Your task to perform on an android device: Go to location settings Image 0: 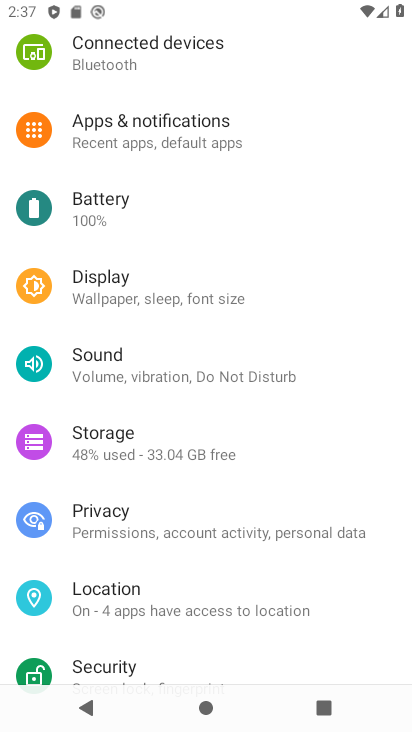
Step 0: press back button
Your task to perform on an android device: Go to location settings Image 1: 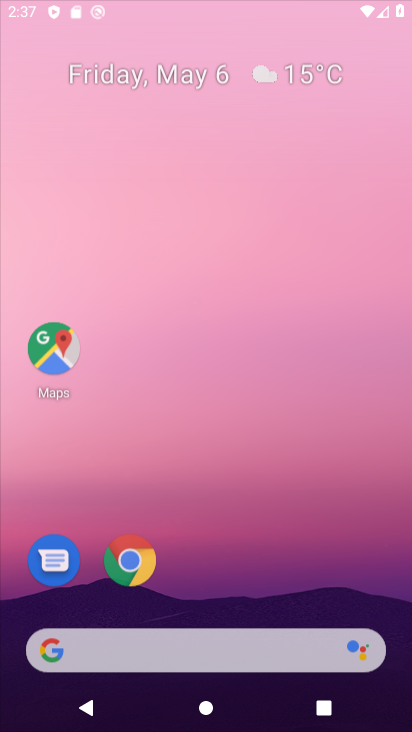
Step 1: press home button
Your task to perform on an android device: Go to location settings Image 2: 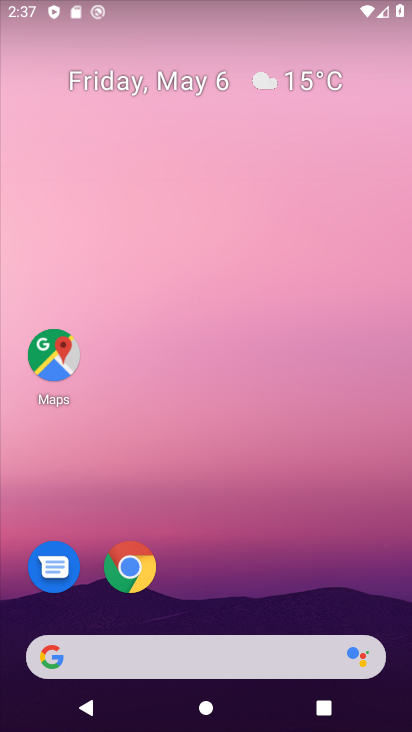
Step 2: drag from (195, 627) to (318, 25)
Your task to perform on an android device: Go to location settings Image 3: 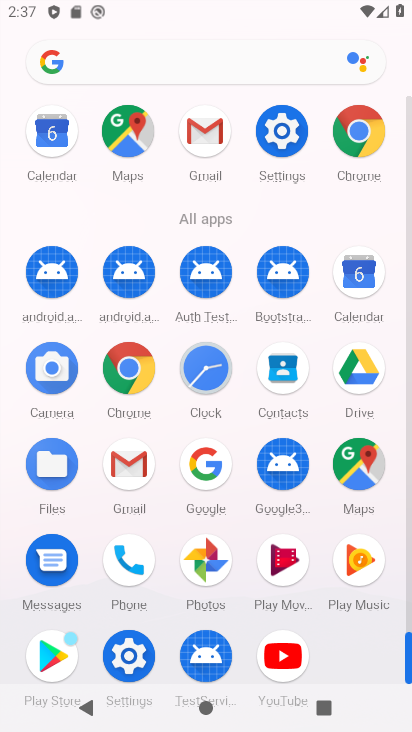
Step 3: click (138, 667)
Your task to perform on an android device: Go to location settings Image 4: 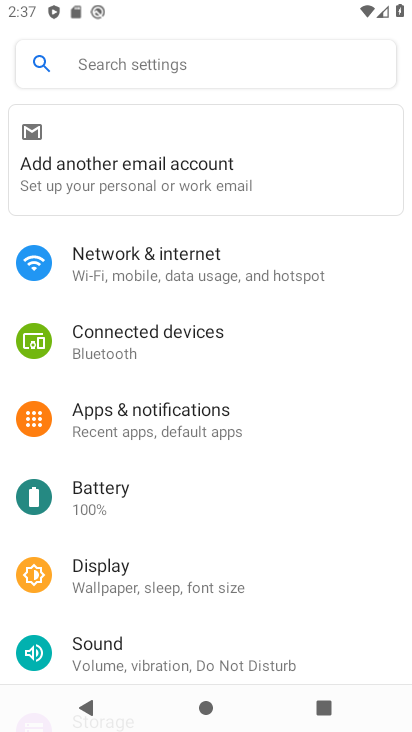
Step 4: drag from (182, 644) to (291, 239)
Your task to perform on an android device: Go to location settings Image 5: 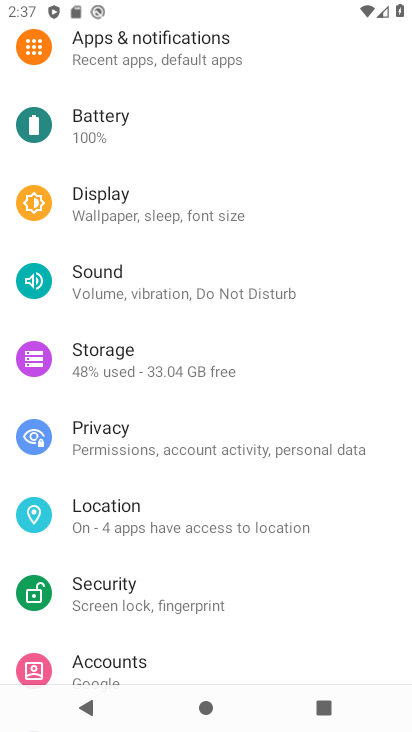
Step 5: click (144, 515)
Your task to perform on an android device: Go to location settings Image 6: 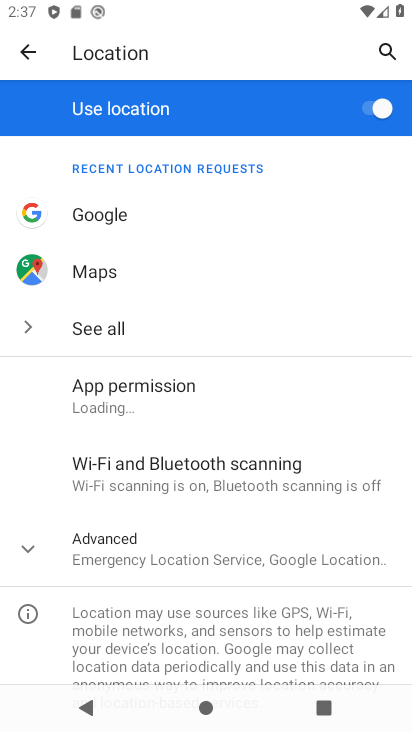
Step 6: task complete